Your task to perform on an android device: Go to accessibility settings Image 0: 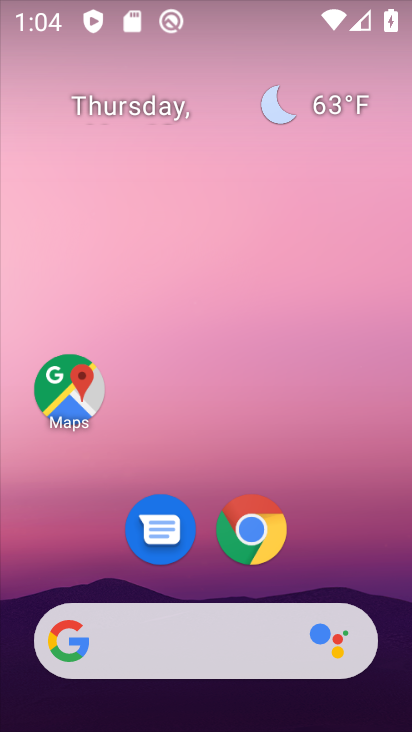
Step 0: drag from (327, 571) to (244, 3)
Your task to perform on an android device: Go to accessibility settings Image 1: 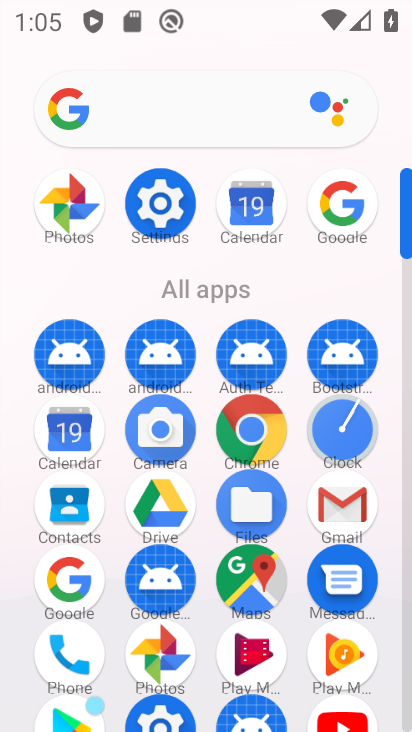
Step 1: click (160, 199)
Your task to perform on an android device: Go to accessibility settings Image 2: 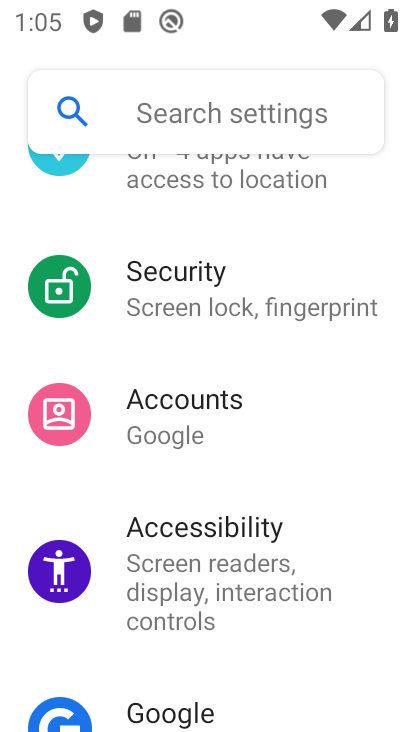
Step 2: drag from (234, 242) to (238, 401)
Your task to perform on an android device: Go to accessibility settings Image 3: 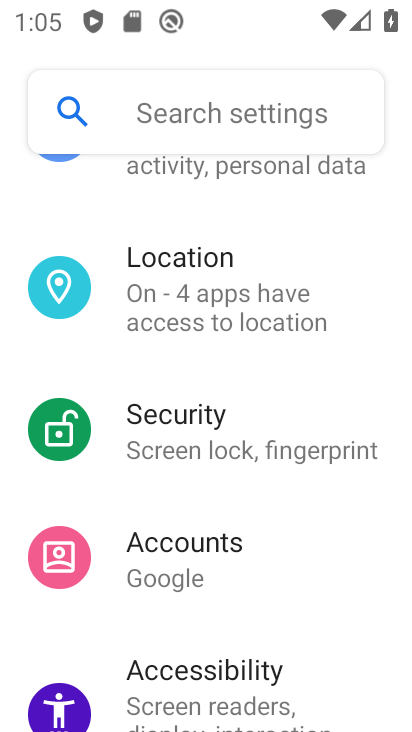
Step 3: drag from (218, 580) to (299, 410)
Your task to perform on an android device: Go to accessibility settings Image 4: 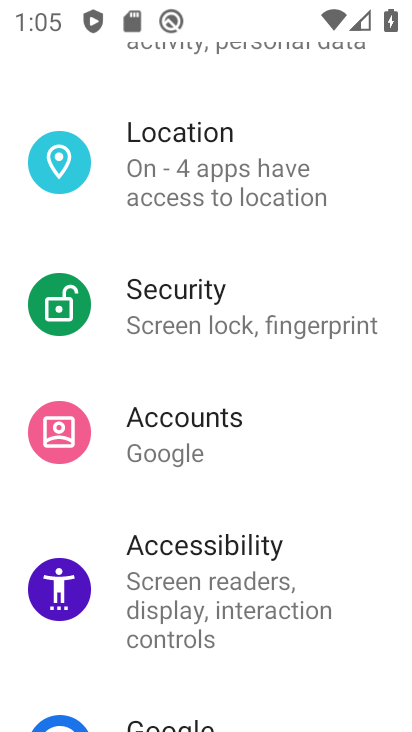
Step 4: click (202, 545)
Your task to perform on an android device: Go to accessibility settings Image 5: 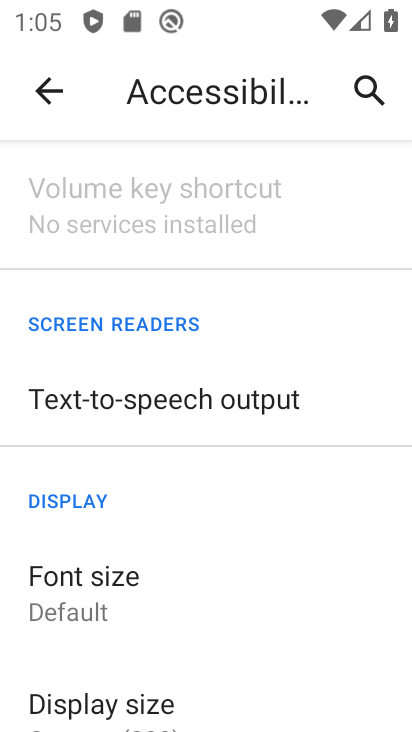
Step 5: task complete